Your task to perform on an android device: Is it going to rain tomorrow? Image 0: 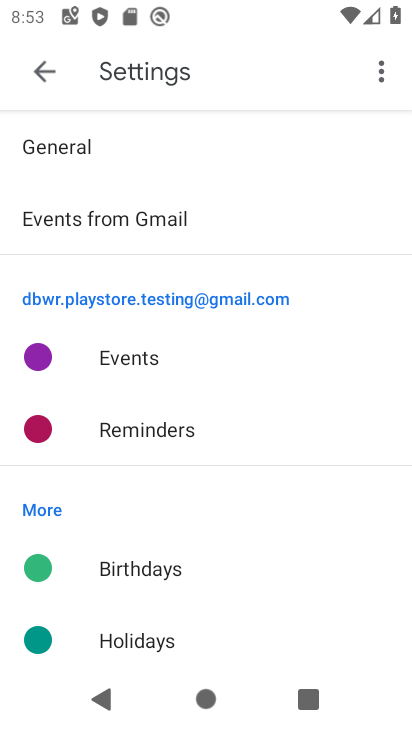
Step 0: press home button
Your task to perform on an android device: Is it going to rain tomorrow? Image 1: 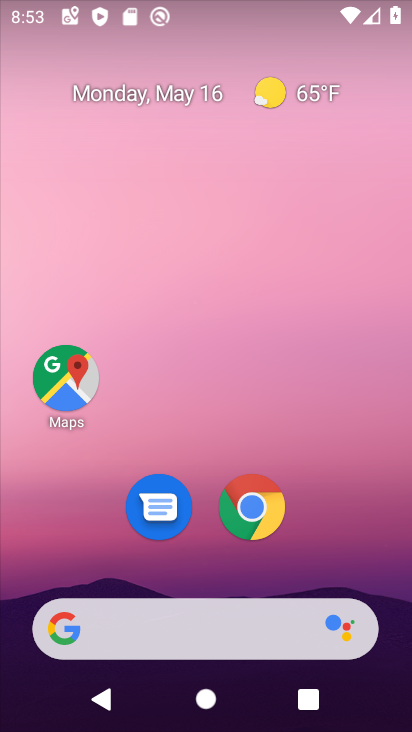
Step 1: click (201, 621)
Your task to perform on an android device: Is it going to rain tomorrow? Image 2: 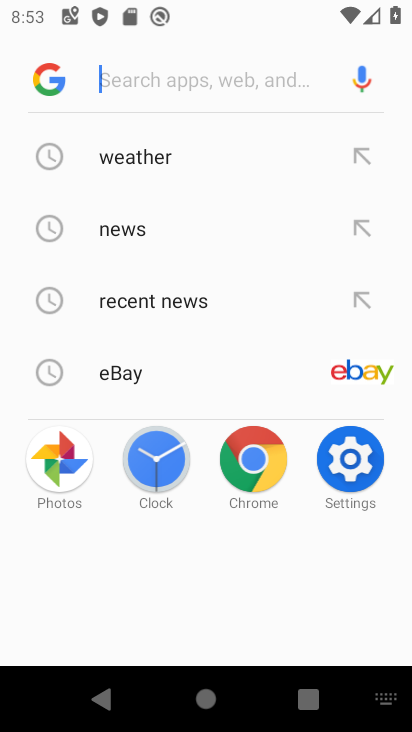
Step 2: click (140, 176)
Your task to perform on an android device: Is it going to rain tomorrow? Image 3: 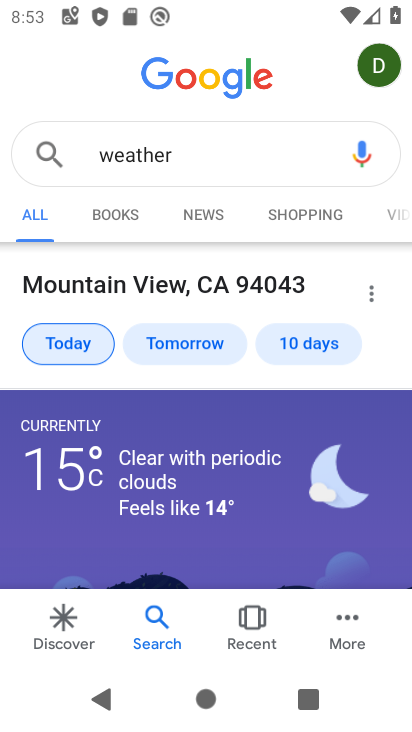
Step 3: drag from (180, 346) to (114, 346)
Your task to perform on an android device: Is it going to rain tomorrow? Image 4: 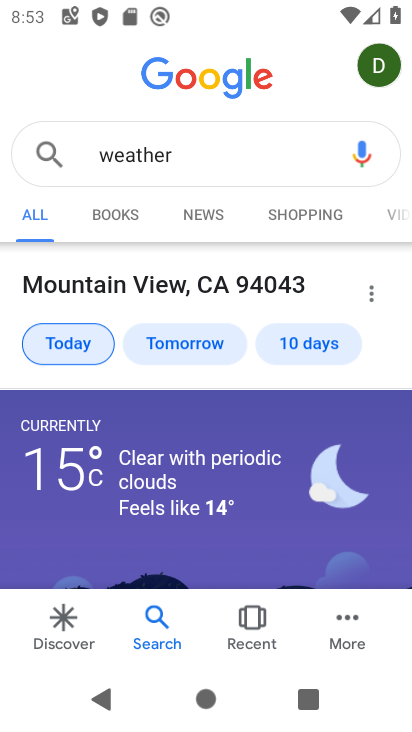
Step 4: click (204, 346)
Your task to perform on an android device: Is it going to rain tomorrow? Image 5: 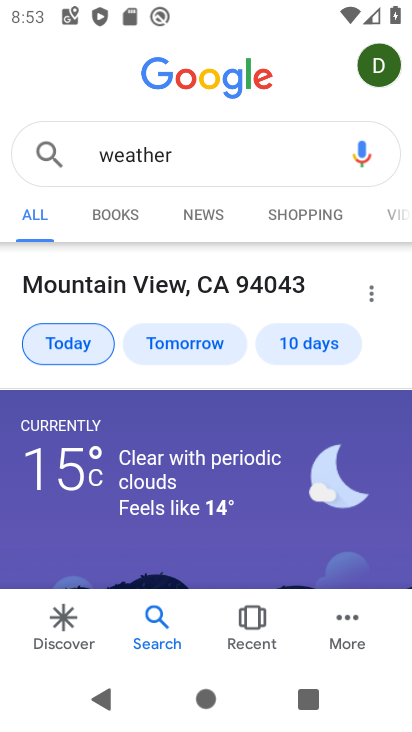
Step 5: click (204, 346)
Your task to perform on an android device: Is it going to rain tomorrow? Image 6: 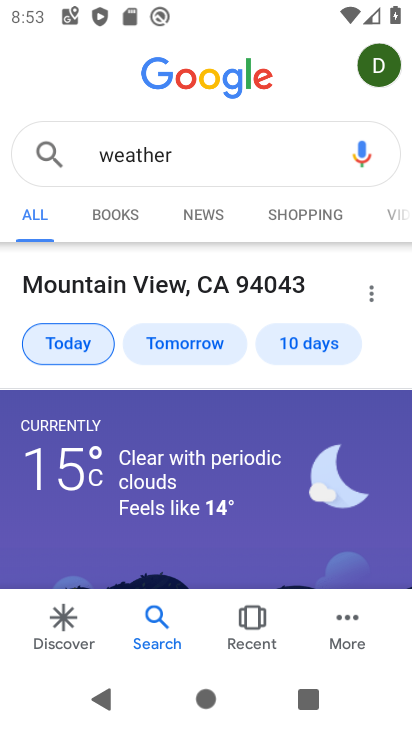
Step 6: click (205, 335)
Your task to perform on an android device: Is it going to rain tomorrow? Image 7: 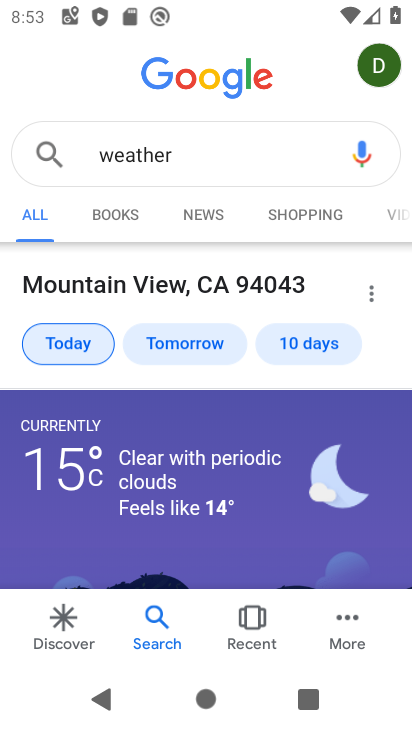
Step 7: task complete